Your task to perform on an android device: refresh tabs in the chrome app Image 0: 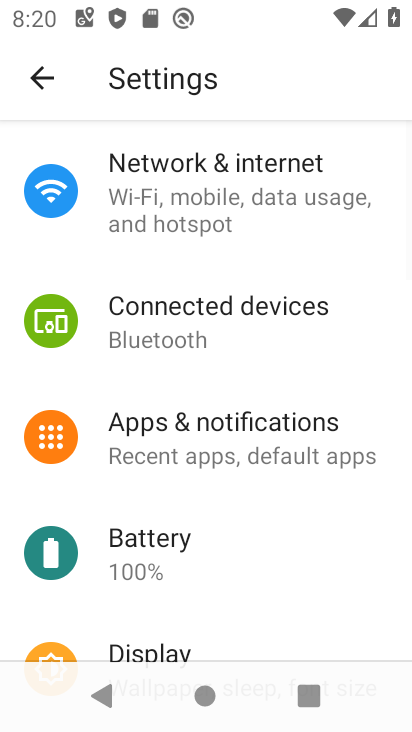
Step 0: click (17, 70)
Your task to perform on an android device: refresh tabs in the chrome app Image 1: 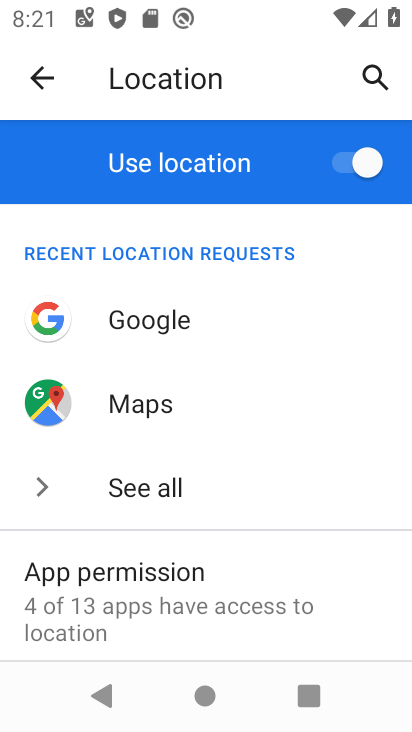
Step 1: click (40, 79)
Your task to perform on an android device: refresh tabs in the chrome app Image 2: 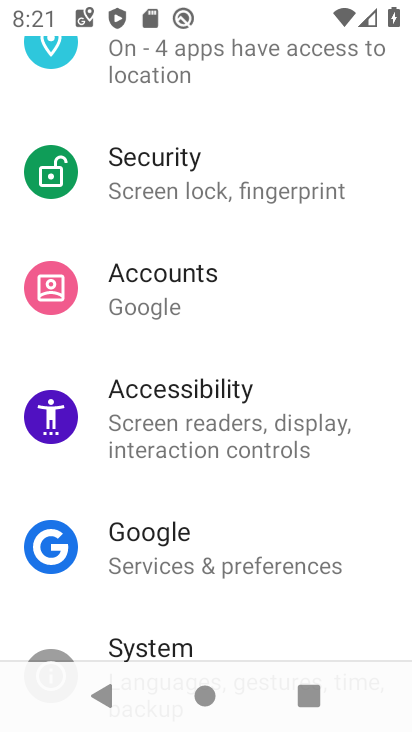
Step 2: press back button
Your task to perform on an android device: refresh tabs in the chrome app Image 3: 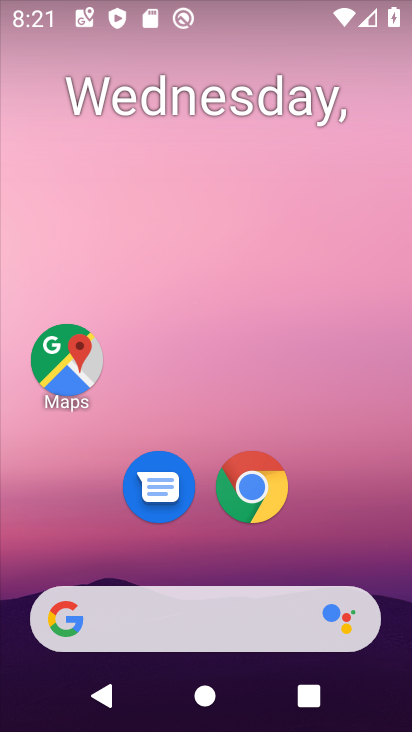
Step 3: drag from (402, 692) to (143, 195)
Your task to perform on an android device: refresh tabs in the chrome app Image 4: 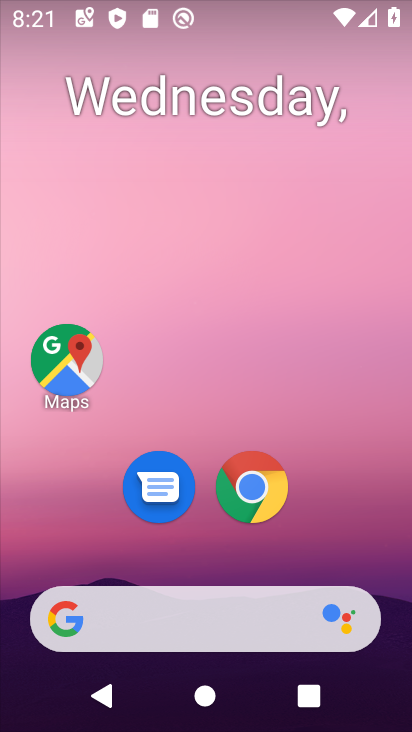
Step 4: drag from (266, 712) to (119, 23)
Your task to perform on an android device: refresh tabs in the chrome app Image 5: 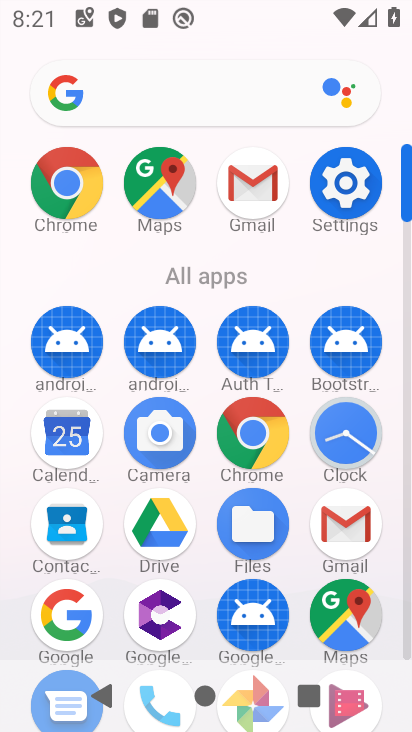
Step 5: click (258, 444)
Your task to perform on an android device: refresh tabs in the chrome app Image 6: 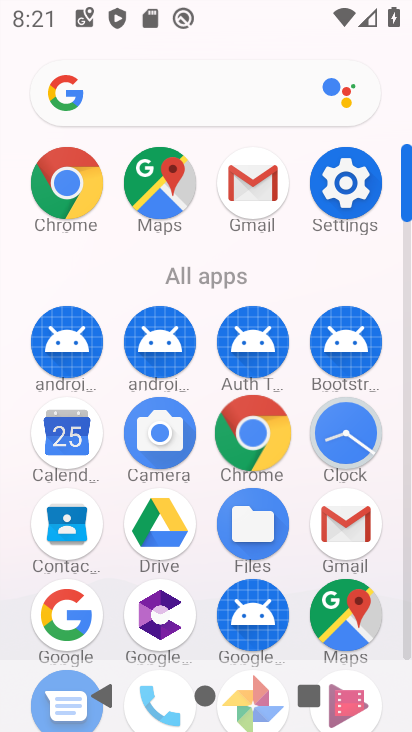
Step 6: click (253, 440)
Your task to perform on an android device: refresh tabs in the chrome app Image 7: 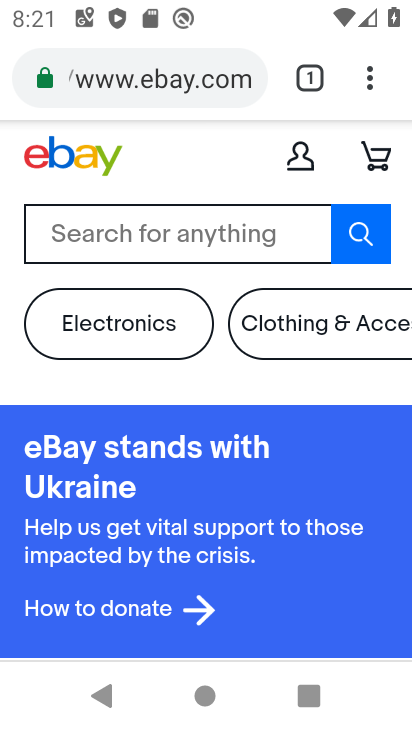
Step 7: click (369, 79)
Your task to perform on an android device: refresh tabs in the chrome app Image 8: 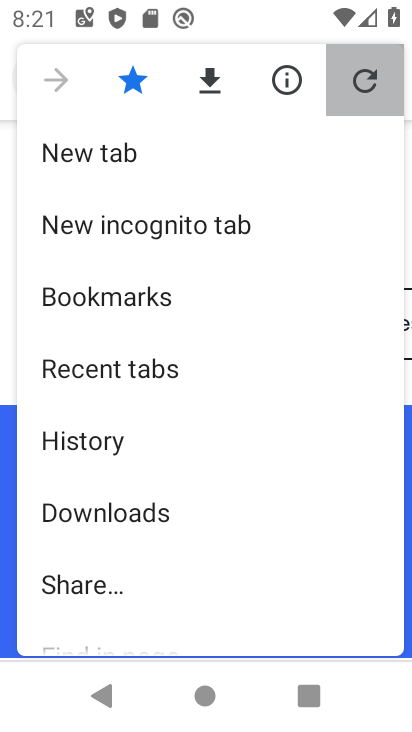
Step 8: click (362, 86)
Your task to perform on an android device: refresh tabs in the chrome app Image 9: 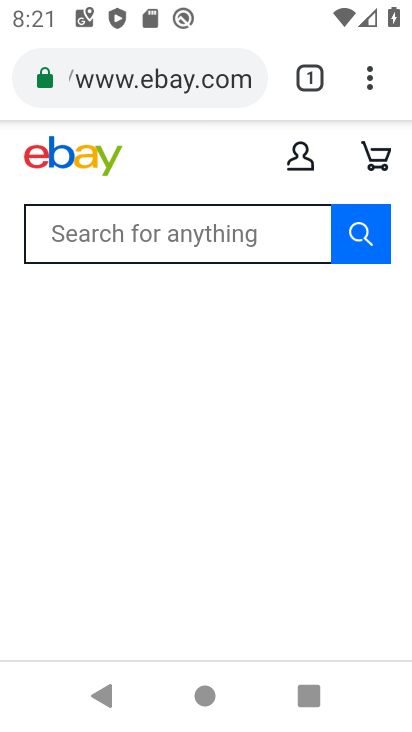
Step 9: press back button
Your task to perform on an android device: refresh tabs in the chrome app Image 10: 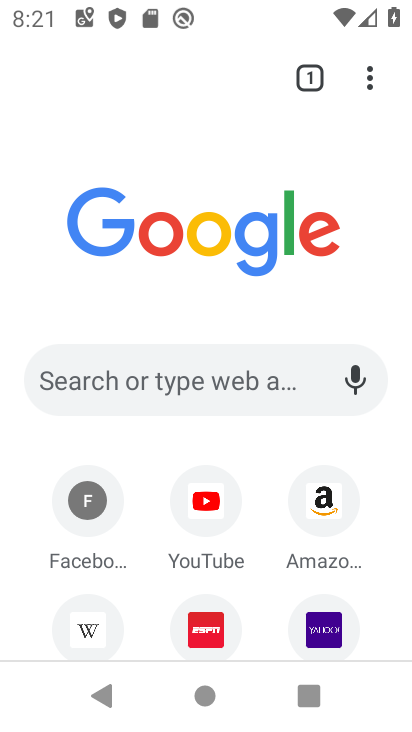
Step 10: press home button
Your task to perform on an android device: refresh tabs in the chrome app Image 11: 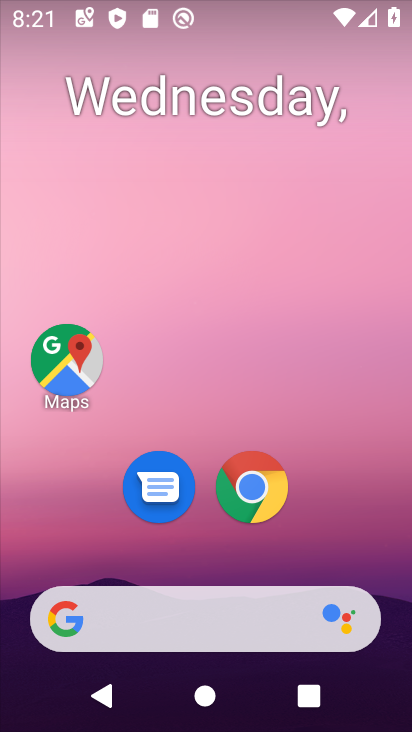
Step 11: drag from (257, 692) to (177, 89)
Your task to perform on an android device: refresh tabs in the chrome app Image 12: 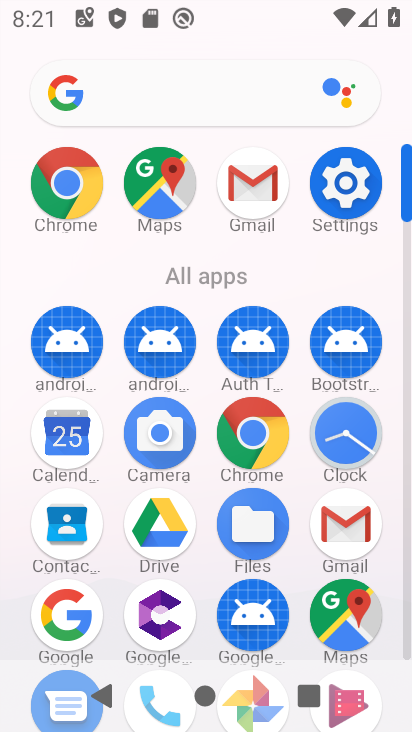
Step 12: click (80, 183)
Your task to perform on an android device: refresh tabs in the chrome app Image 13: 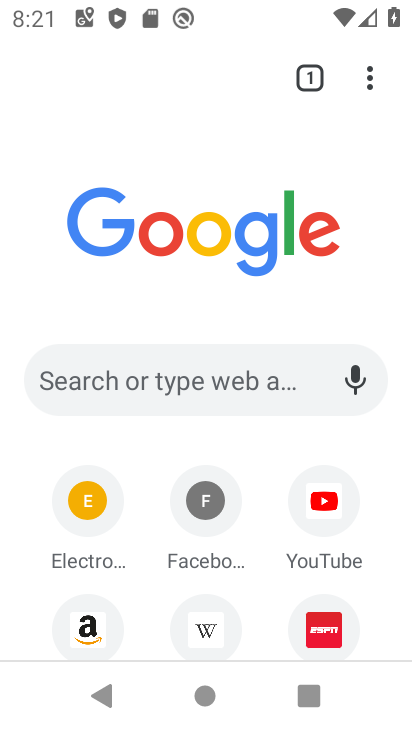
Step 13: click (370, 82)
Your task to perform on an android device: refresh tabs in the chrome app Image 14: 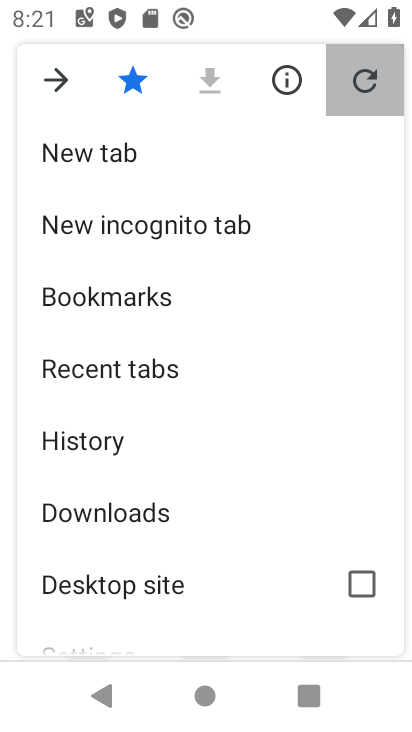
Step 14: click (375, 80)
Your task to perform on an android device: refresh tabs in the chrome app Image 15: 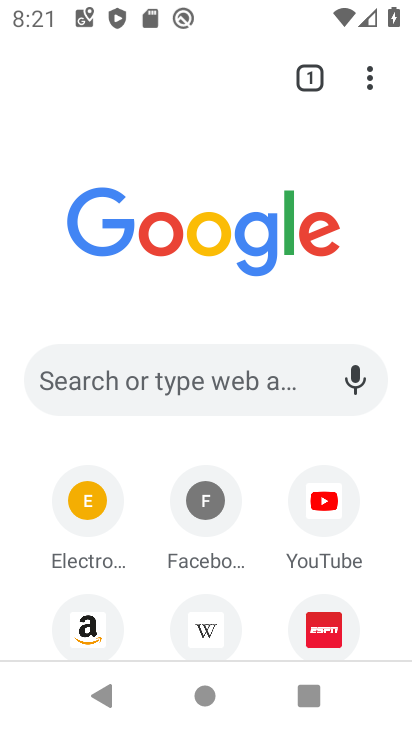
Step 15: task complete